Your task to perform on an android device: change text size in settings app Image 0: 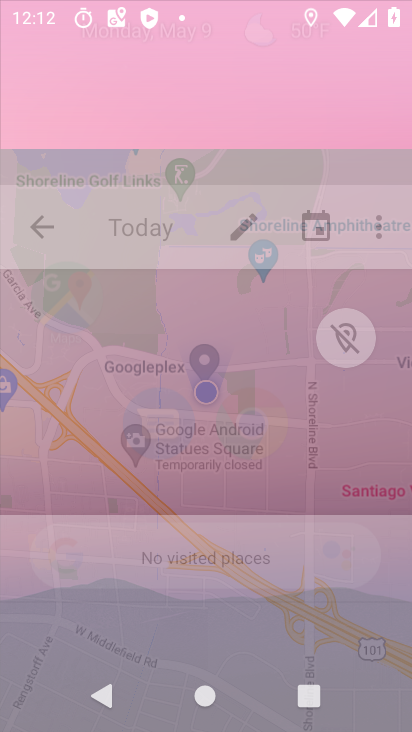
Step 0: drag from (369, 330) to (374, 162)
Your task to perform on an android device: change text size in settings app Image 1: 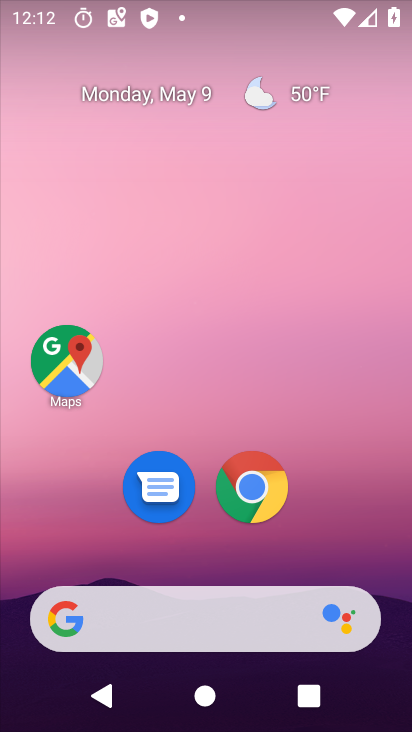
Step 1: drag from (322, 523) to (338, 94)
Your task to perform on an android device: change text size in settings app Image 2: 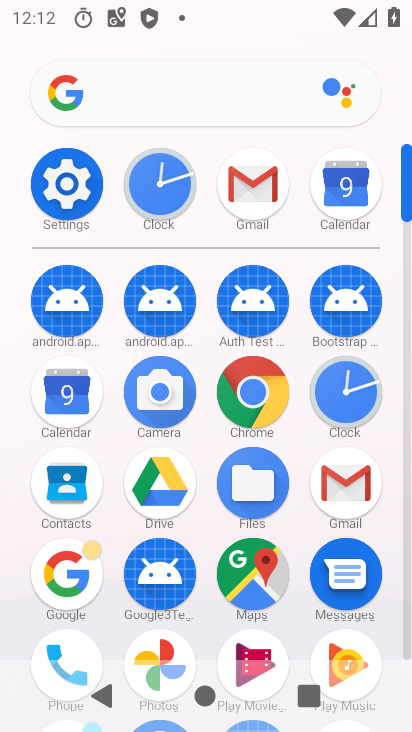
Step 2: click (60, 191)
Your task to perform on an android device: change text size in settings app Image 3: 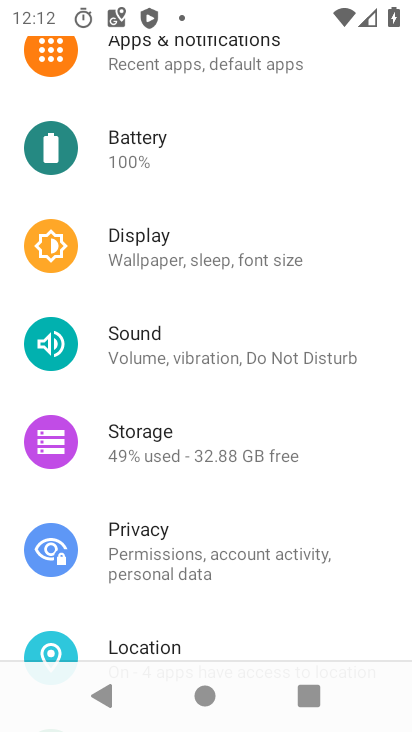
Step 3: click (215, 263)
Your task to perform on an android device: change text size in settings app Image 4: 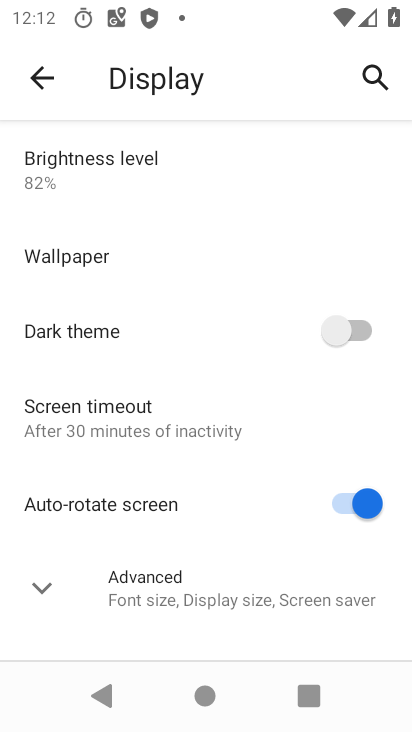
Step 4: click (229, 592)
Your task to perform on an android device: change text size in settings app Image 5: 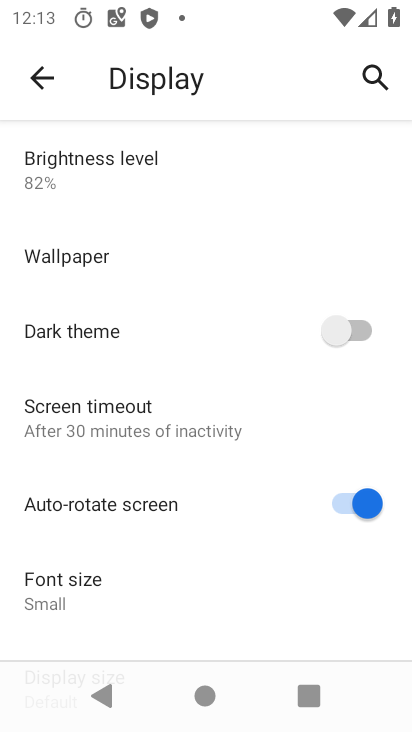
Step 5: click (83, 609)
Your task to perform on an android device: change text size in settings app Image 6: 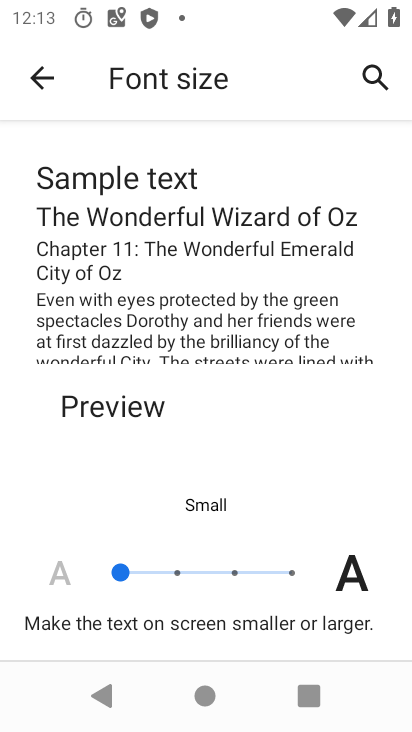
Step 6: click (175, 578)
Your task to perform on an android device: change text size in settings app Image 7: 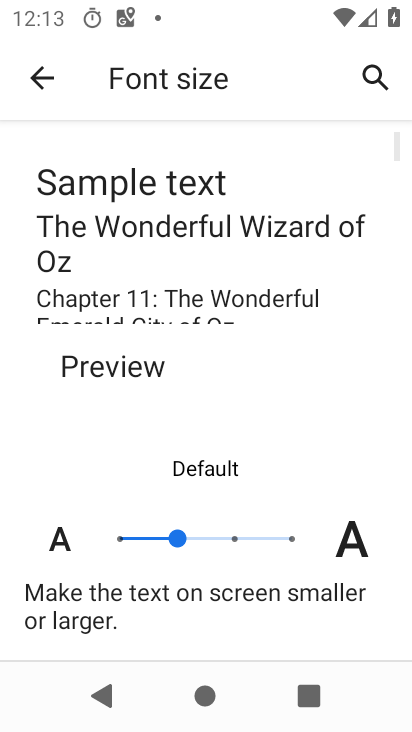
Step 7: task complete